Your task to perform on an android device: toggle airplane mode Image 0: 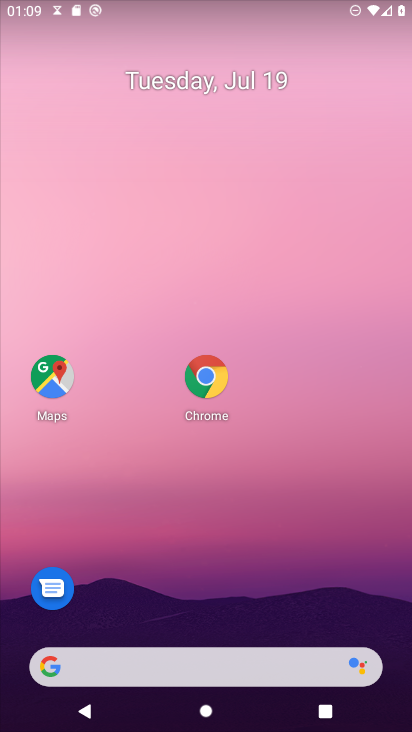
Step 0: press home button
Your task to perform on an android device: toggle airplane mode Image 1: 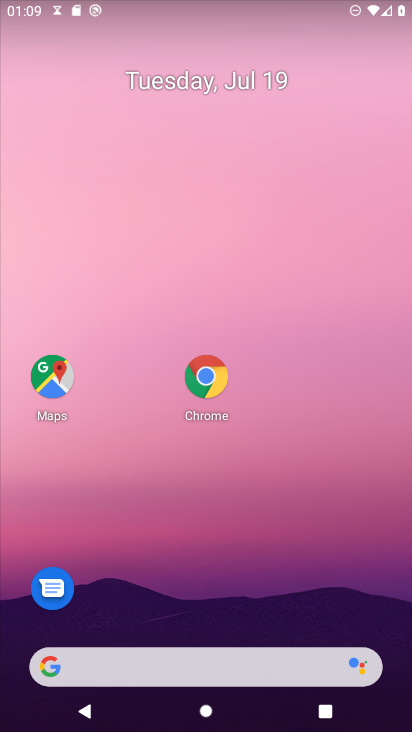
Step 1: drag from (271, 7) to (339, 287)
Your task to perform on an android device: toggle airplane mode Image 2: 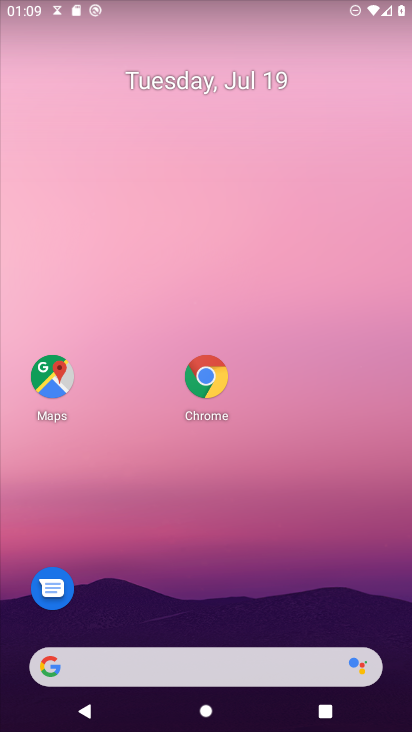
Step 2: drag from (289, 4) to (314, 436)
Your task to perform on an android device: toggle airplane mode Image 3: 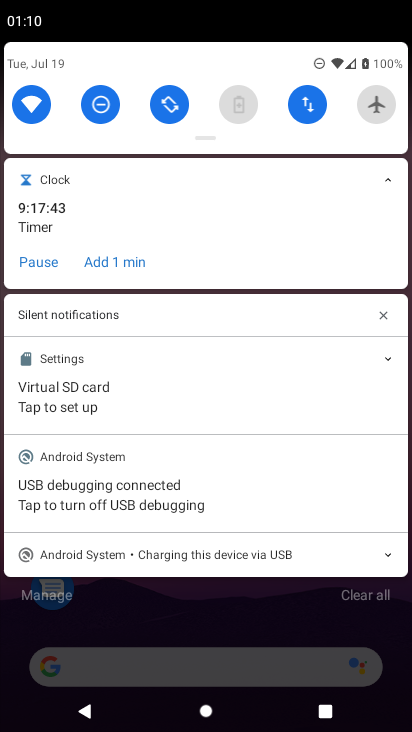
Step 3: click (372, 106)
Your task to perform on an android device: toggle airplane mode Image 4: 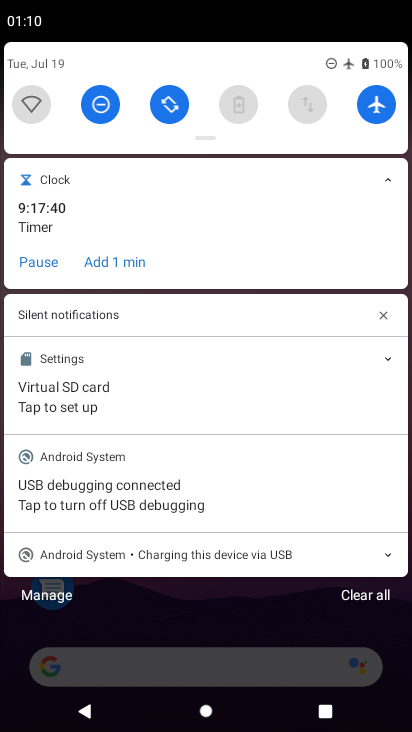
Step 4: task complete